Your task to perform on an android device: When is my next appointment? Image 0: 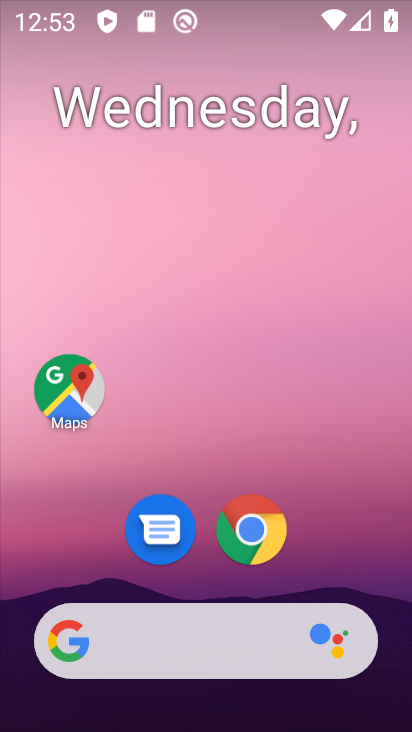
Step 0: drag from (292, 448) to (312, 0)
Your task to perform on an android device: When is my next appointment? Image 1: 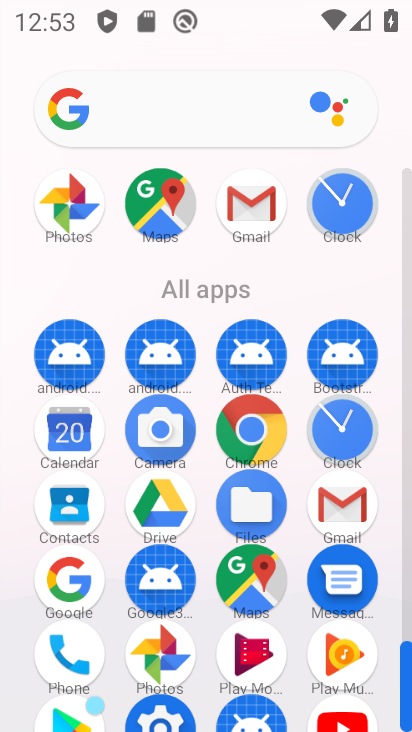
Step 1: click (84, 447)
Your task to perform on an android device: When is my next appointment? Image 2: 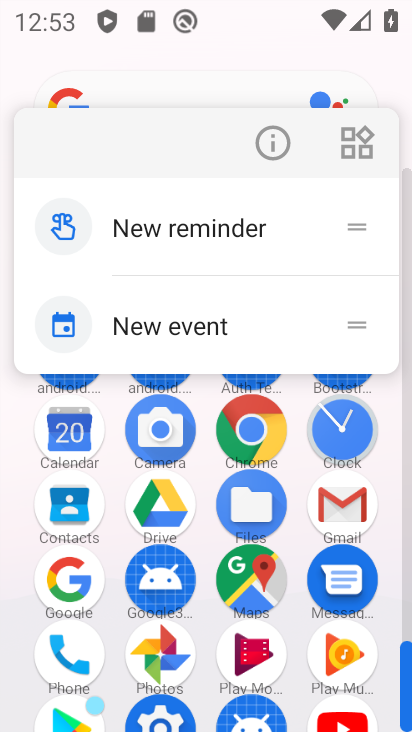
Step 2: click (75, 426)
Your task to perform on an android device: When is my next appointment? Image 3: 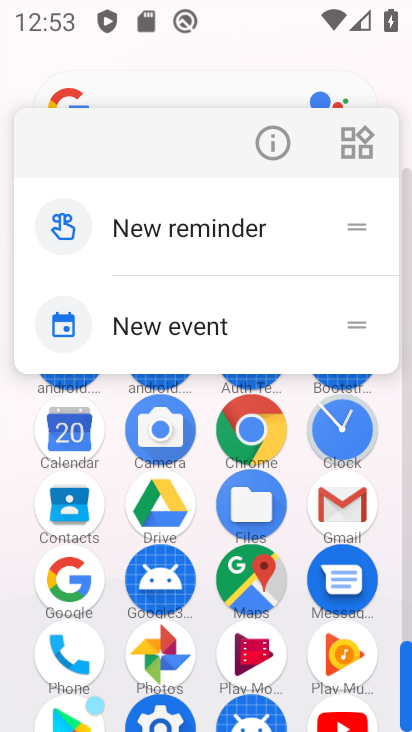
Step 3: click (75, 426)
Your task to perform on an android device: When is my next appointment? Image 4: 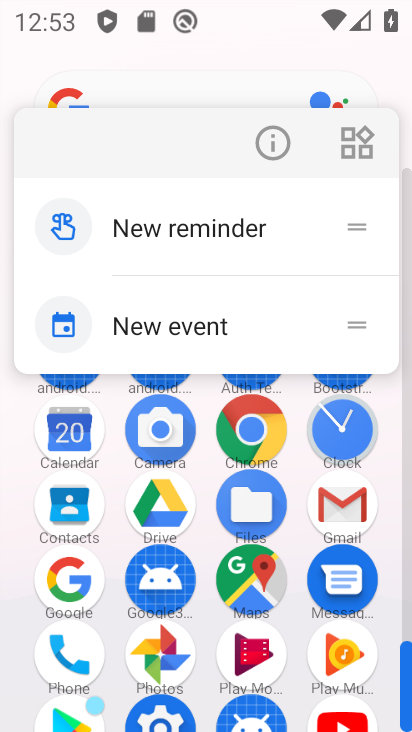
Step 4: click (75, 426)
Your task to perform on an android device: When is my next appointment? Image 5: 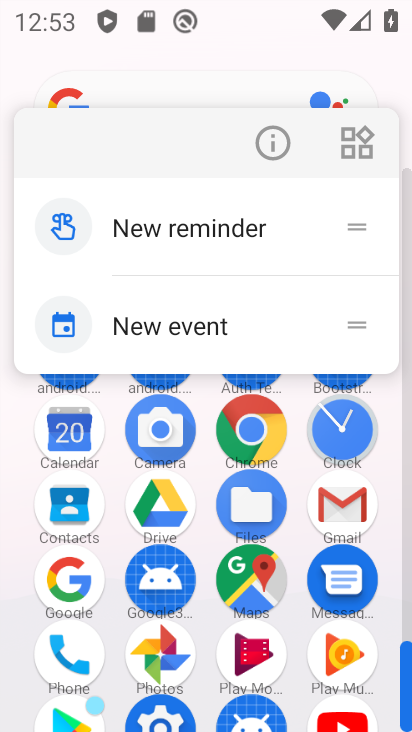
Step 5: click (75, 426)
Your task to perform on an android device: When is my next appointment? Image 6: 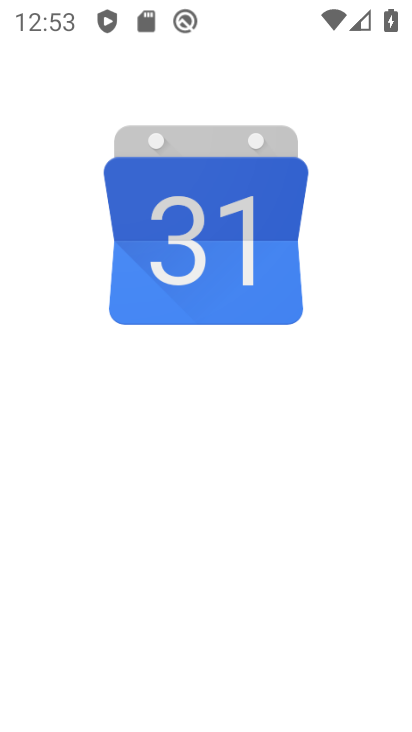
Step 6: click (73, 423)
Your task to perform on an android device: When is my next appointment? Image 7: 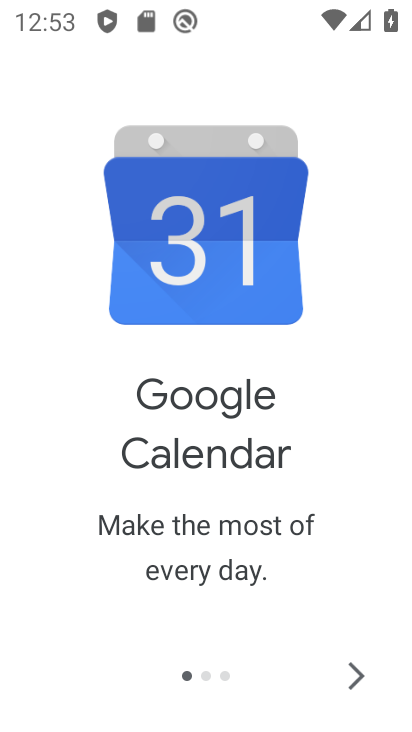
Step 7: click (360, 672)
Your task to perform on an android device: When is my next appointment? Image 8: 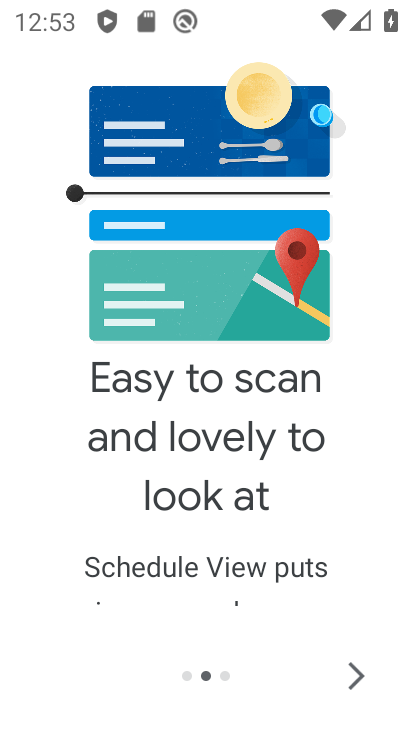
Step 8: click (364, 664)
Your task to perform on an android device: When is my next appointment? Image 9: 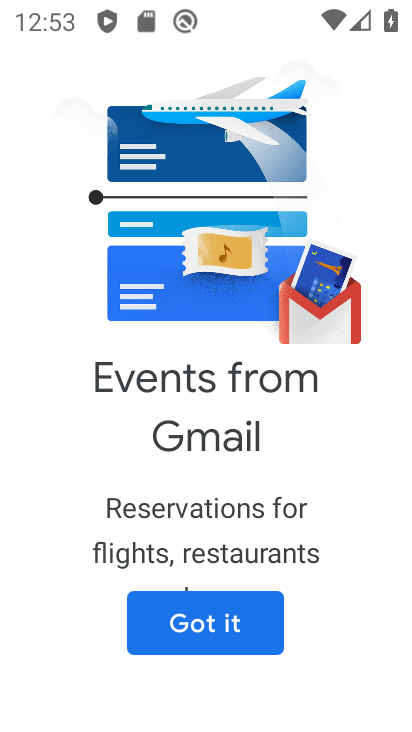
Step 9: click (353, 664)
Your task to perform on an android device: When is my next appointment? Image 10: 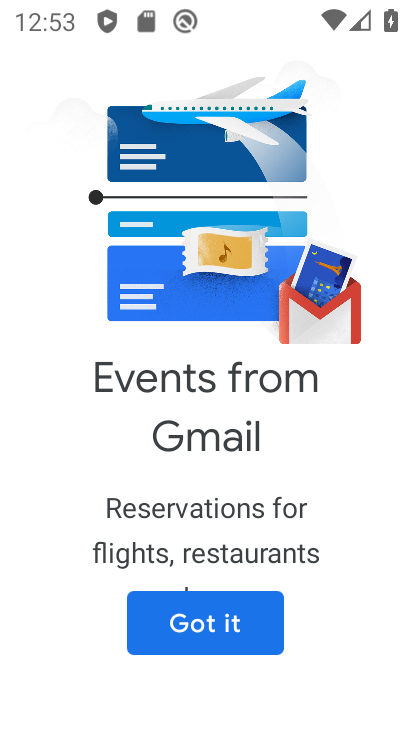
Step 10: click (256, 621)
Your task to perform on an android device: When is my next appointment? Image 11: 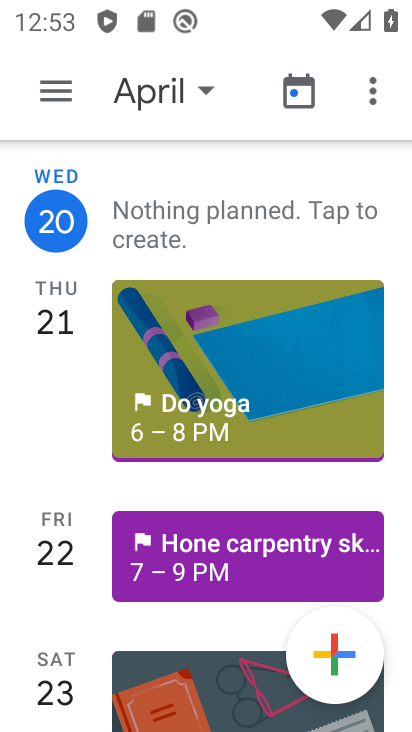
Step 11: click (64, 97)
Your task to perform on an android device: When is my next appointment? Image 12: 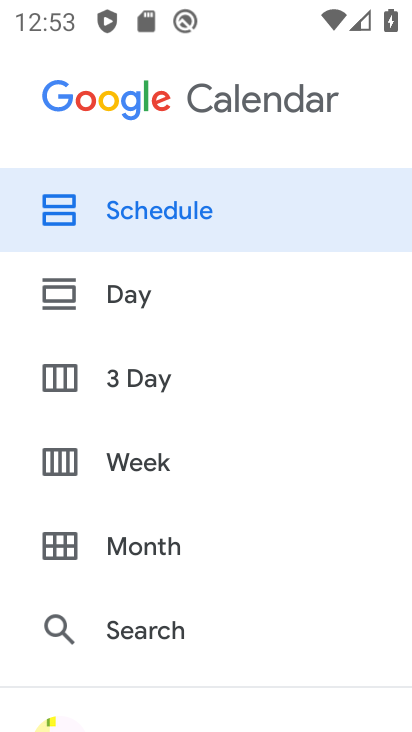
Step 12: drag from (408, 401) to (157, 388)
Your task to perform on an android device: When is my next appointment? Image 13: 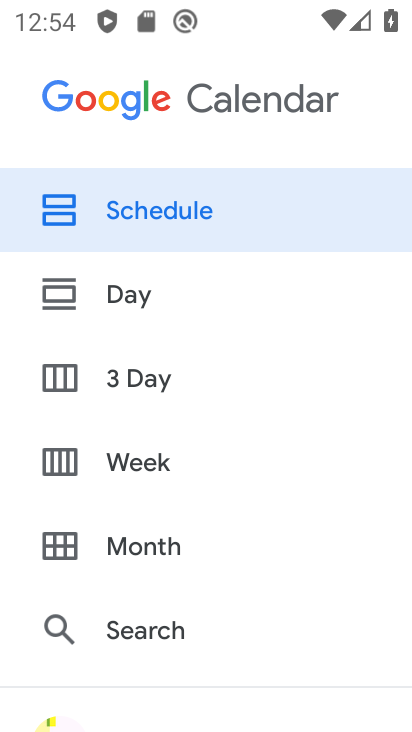
Step 13: drag from (112, 692) to (118, 124)
Your task to perform on an android device: When is my next appointment? Image 14: 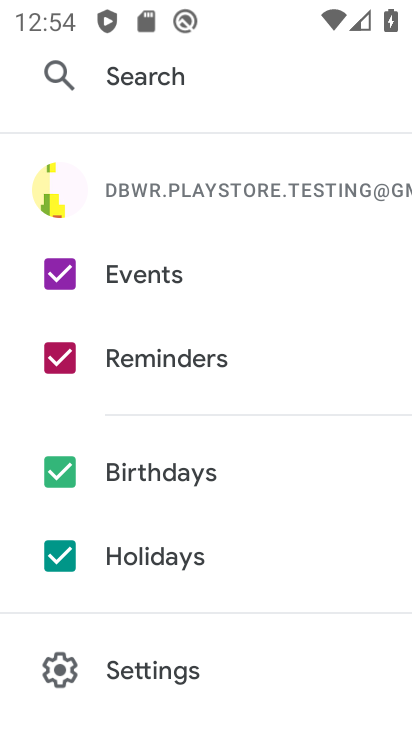
Step 14: drag from (292, 359) to (1, 646)
Your task to perform on an android device: When is my next appointment? Image 15: 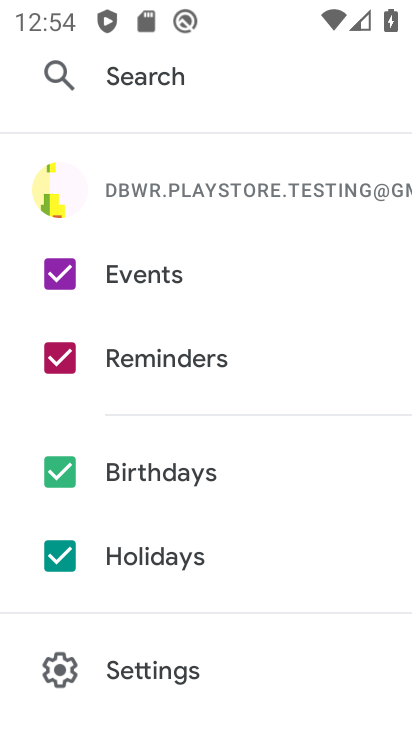
Step 15: drag from (403, 393) to (2, 514)
Your task to perform on an android device: When is my next appointment? Image 16: 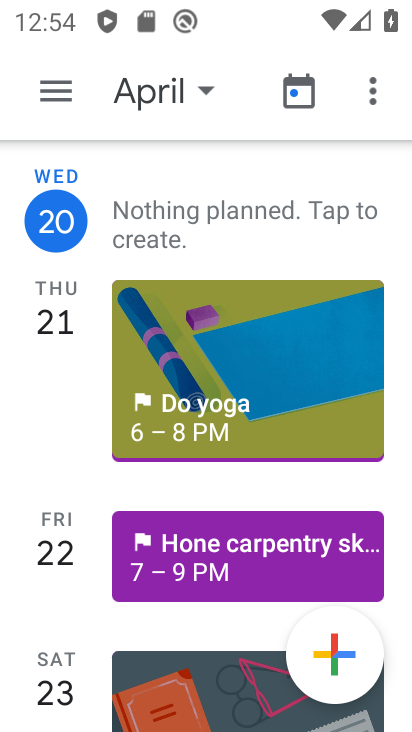
Step 16: click (205, 90)
Your task to perform on an android device: When is my next appointment? Image 17: 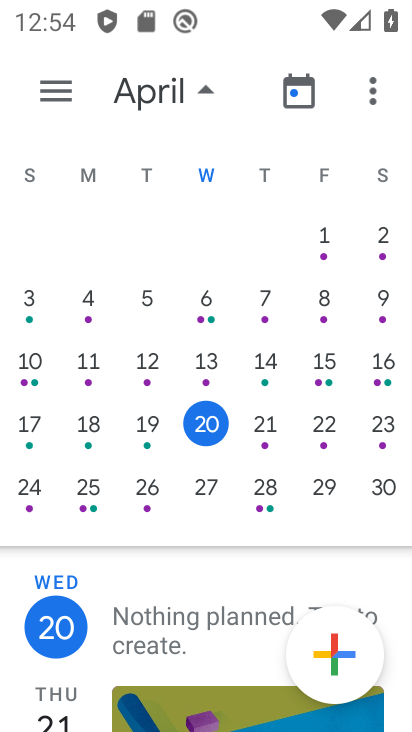
Step 17: click (271, 488)
Your task to perform on an android device: When is my next appointment? Image 18: 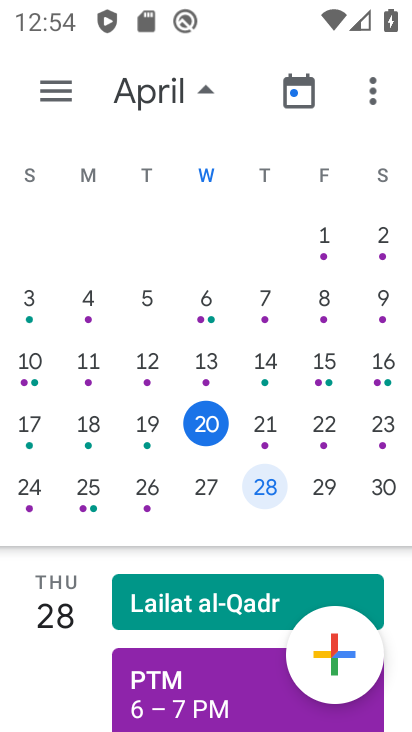
Step 18: task complete